Your task to perform on an android device: open app "Facebook Messenger" (install if not already installed) Image 0: 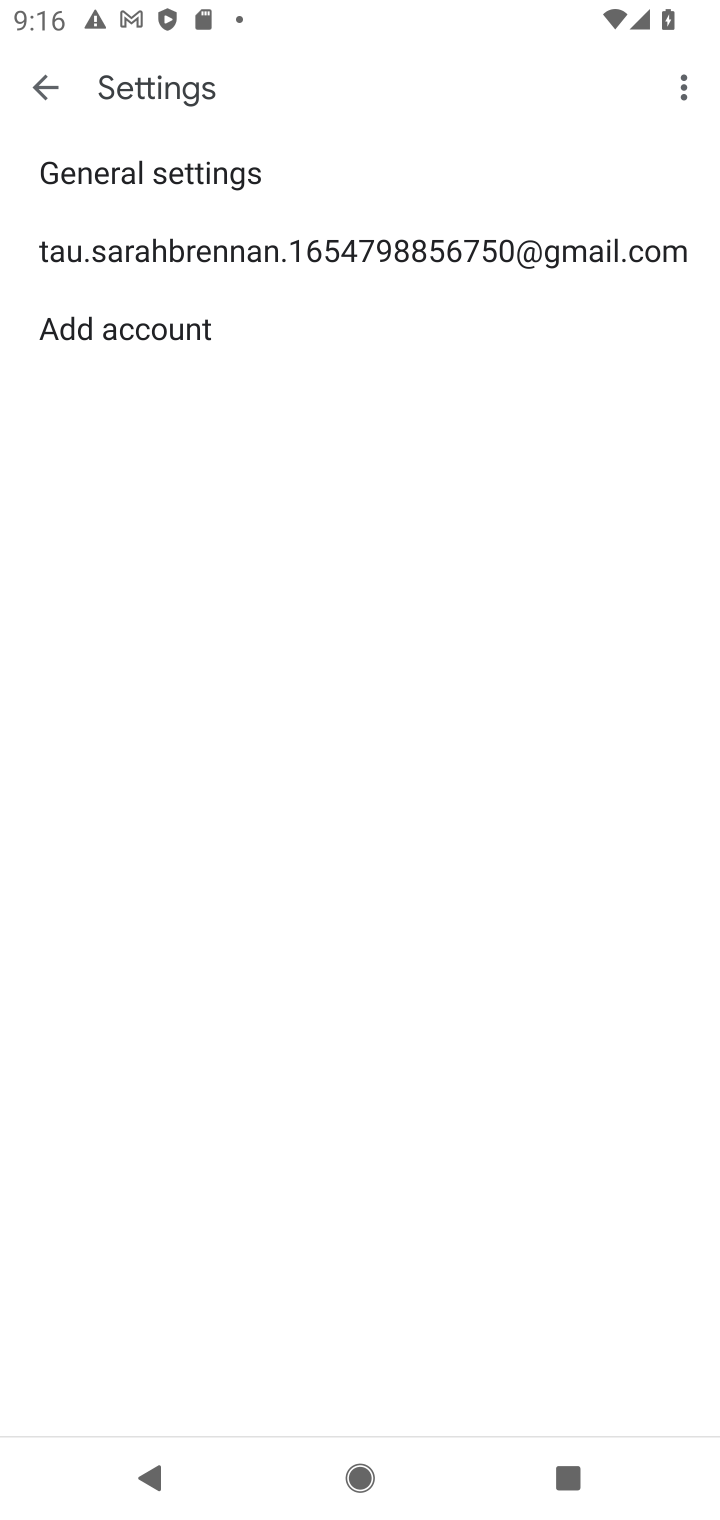
Step 0: press home button
Your task to perform on an android device: open app "Facebook Messenger" (install if not already installed) Image 1: 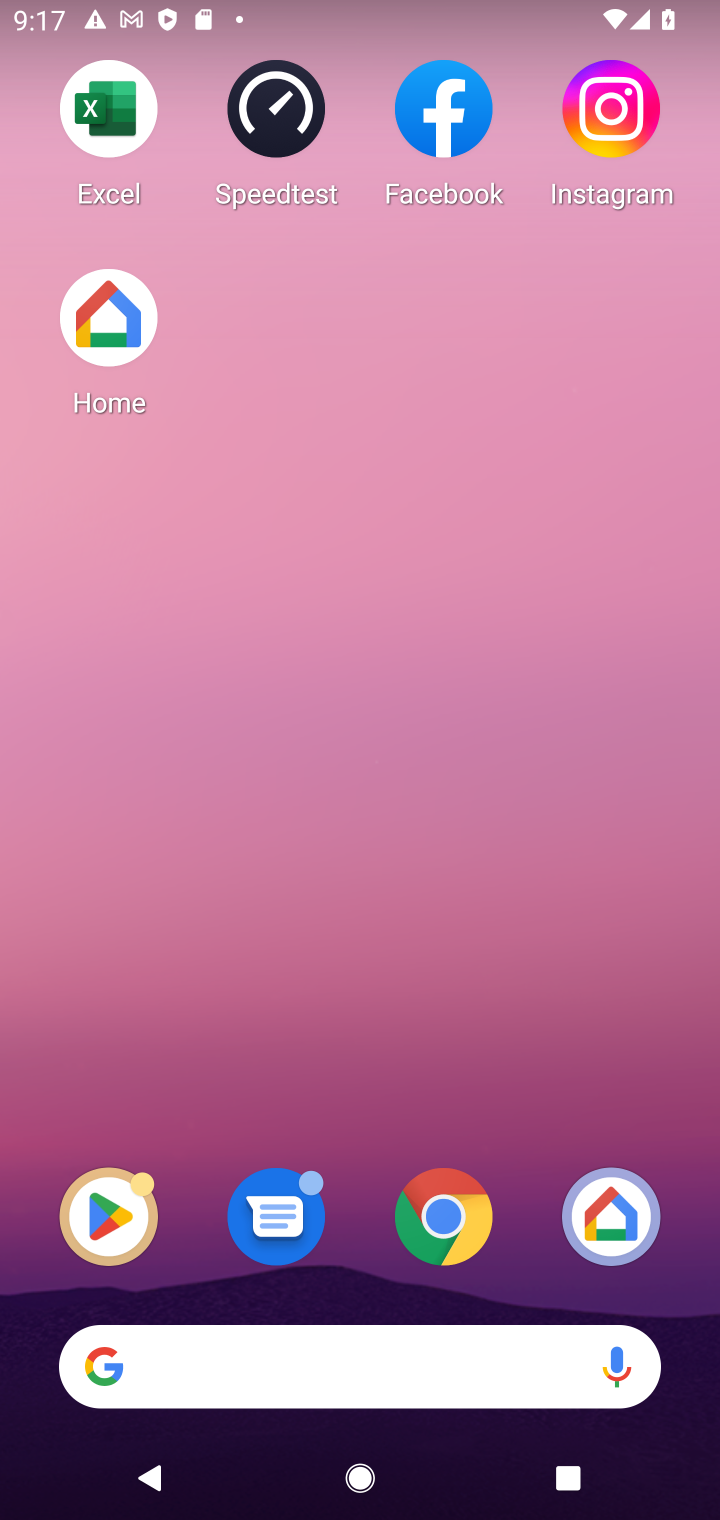
Step 1: click (120, 1220)
Your task to perform on an android device: open app "Facebook Messenger" (install if not already installed) Image 2: 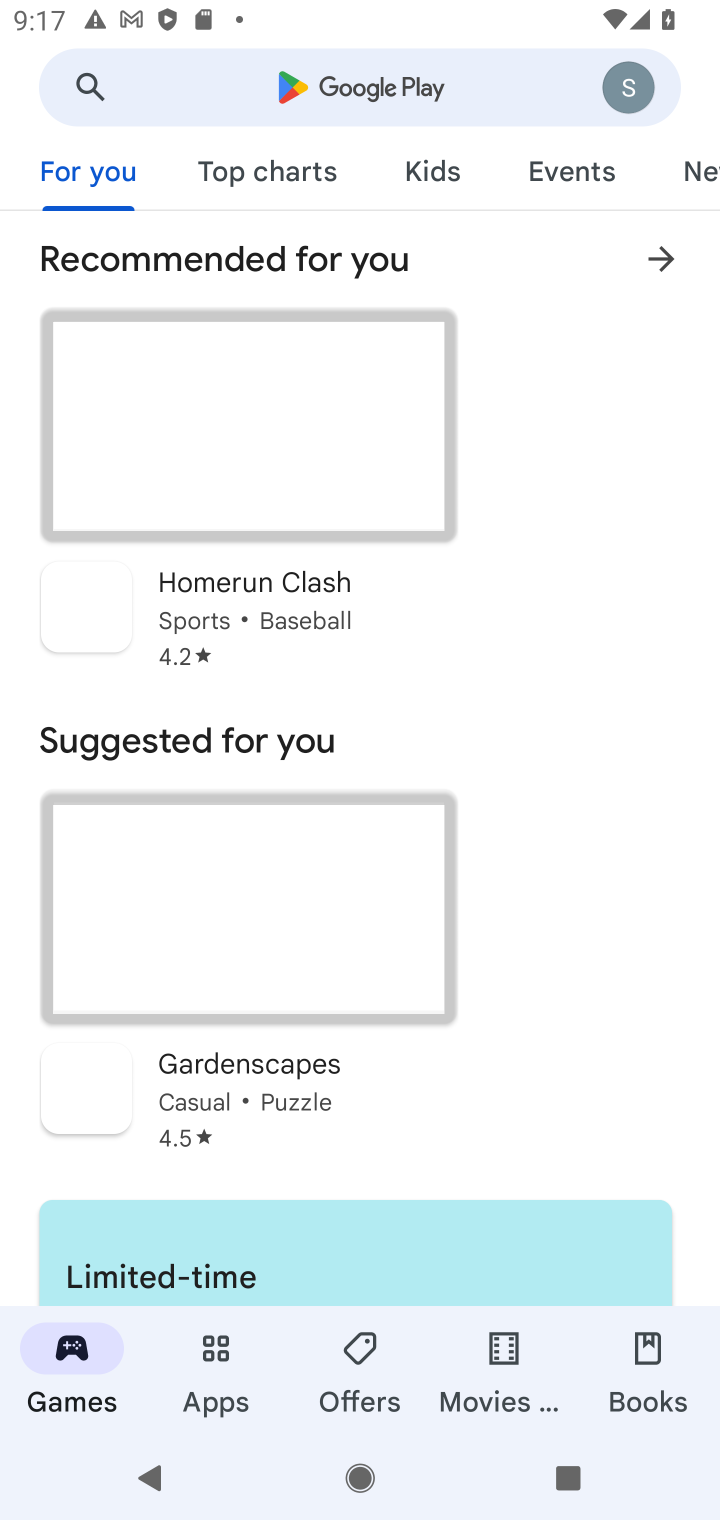
Step 2: click (209, 89)
Your task to perform on an android device: open app "Facebook Messenger" (install if not already installed) Image 3: 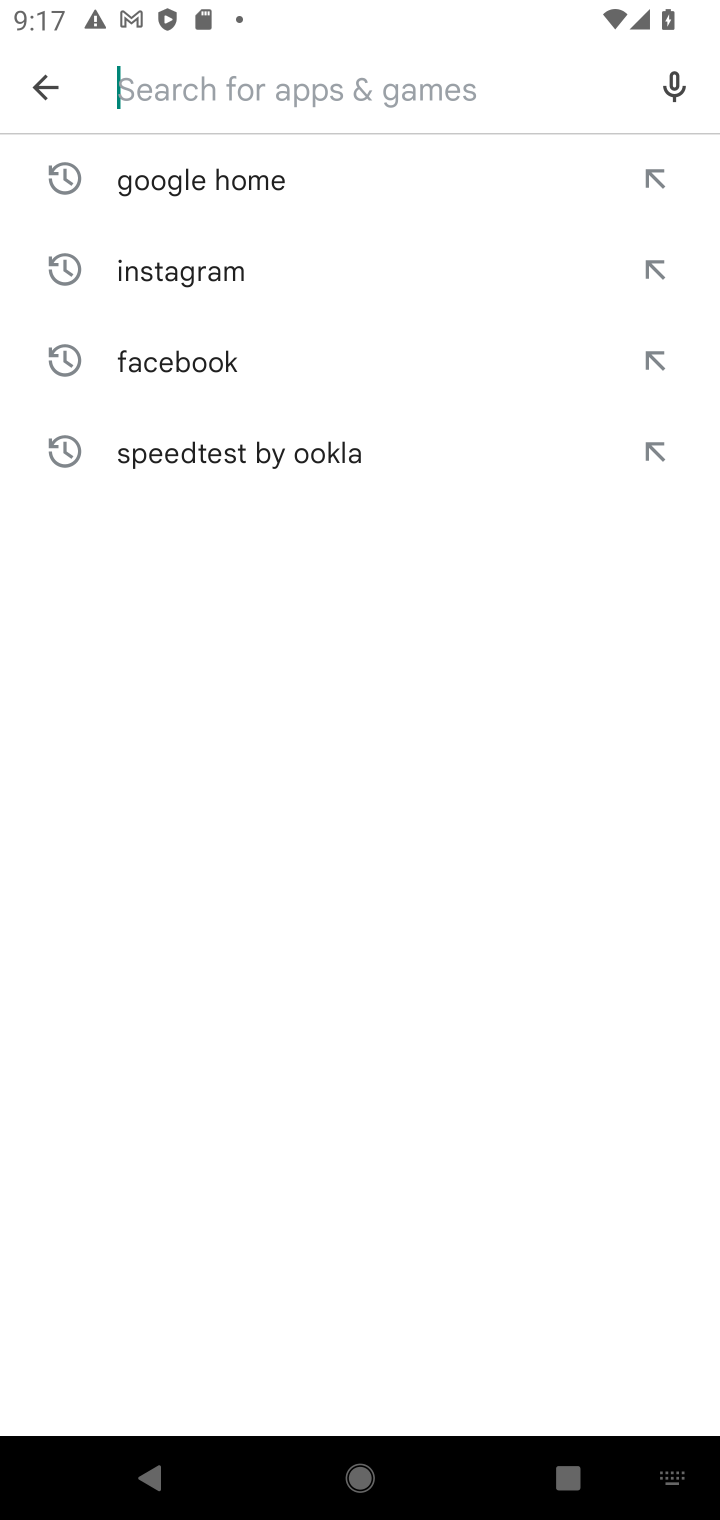
Step 3: type "Facebook Messenger"
Your task to perform on an android device: open app "Facebook Messenger" (install if not already installed) Image 4: 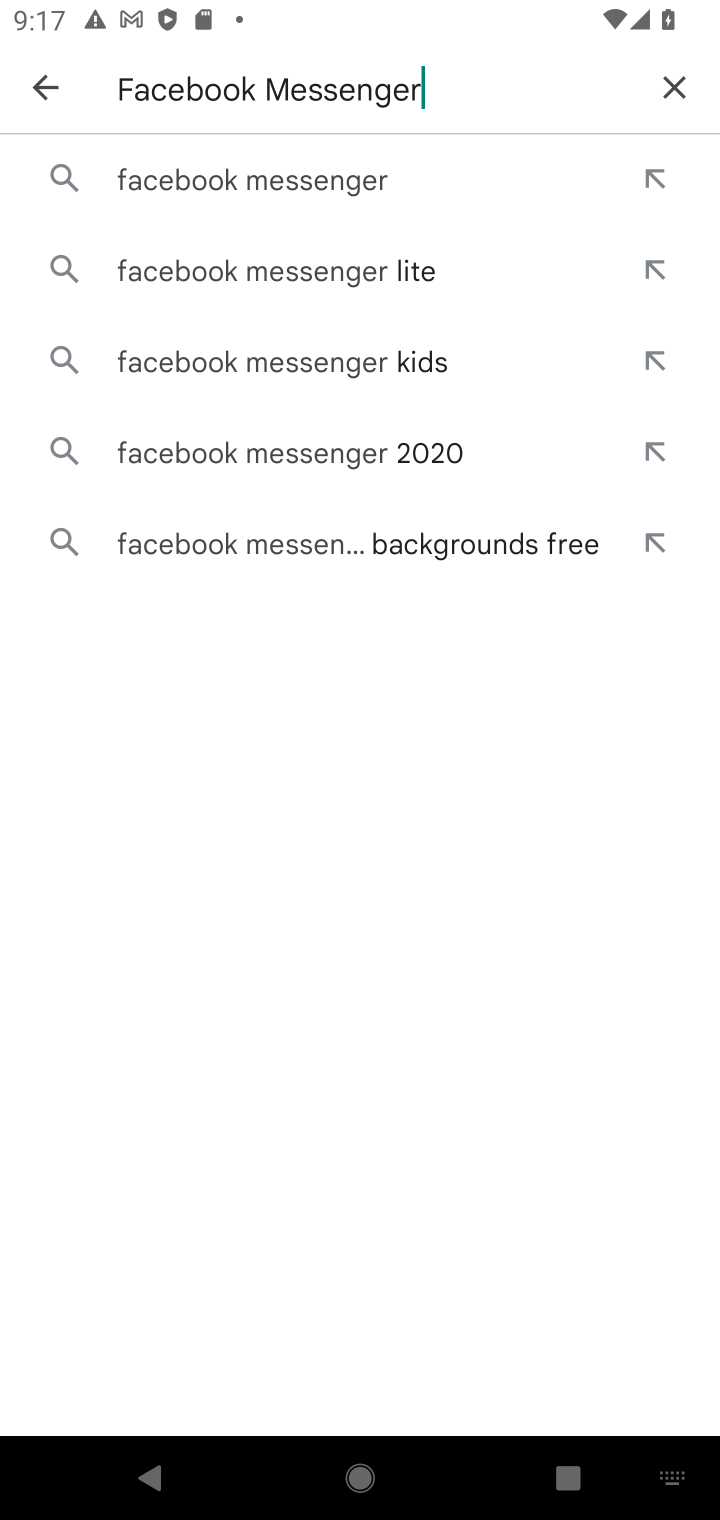
Step 4: click (215, 195)
Your task to perform on an android device: open app "Facebook Messenger" (install if not already installed) Image 5: 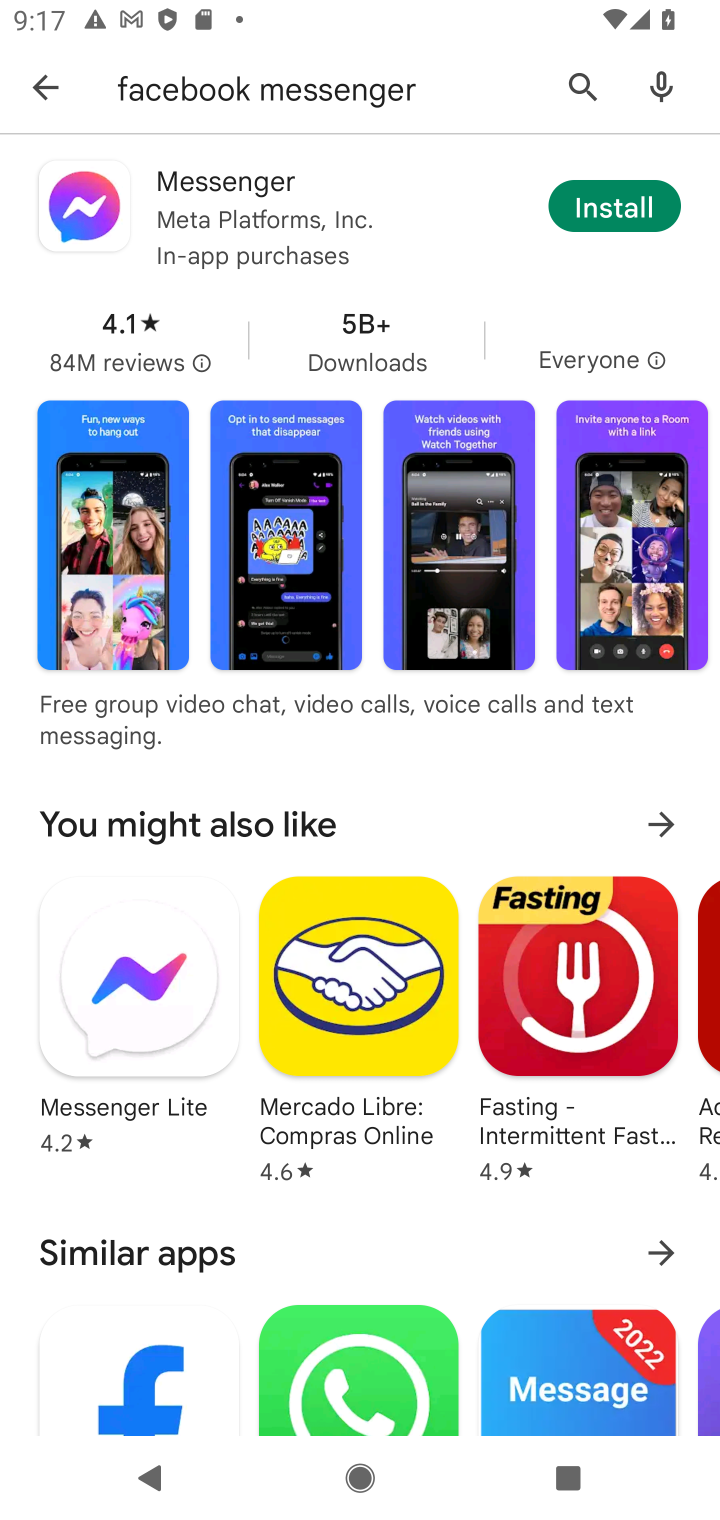
Step 5: click (599, 205)
Your task to perform on an android device: open app "Facebook Messenger" (install if not already installed) Image 6: 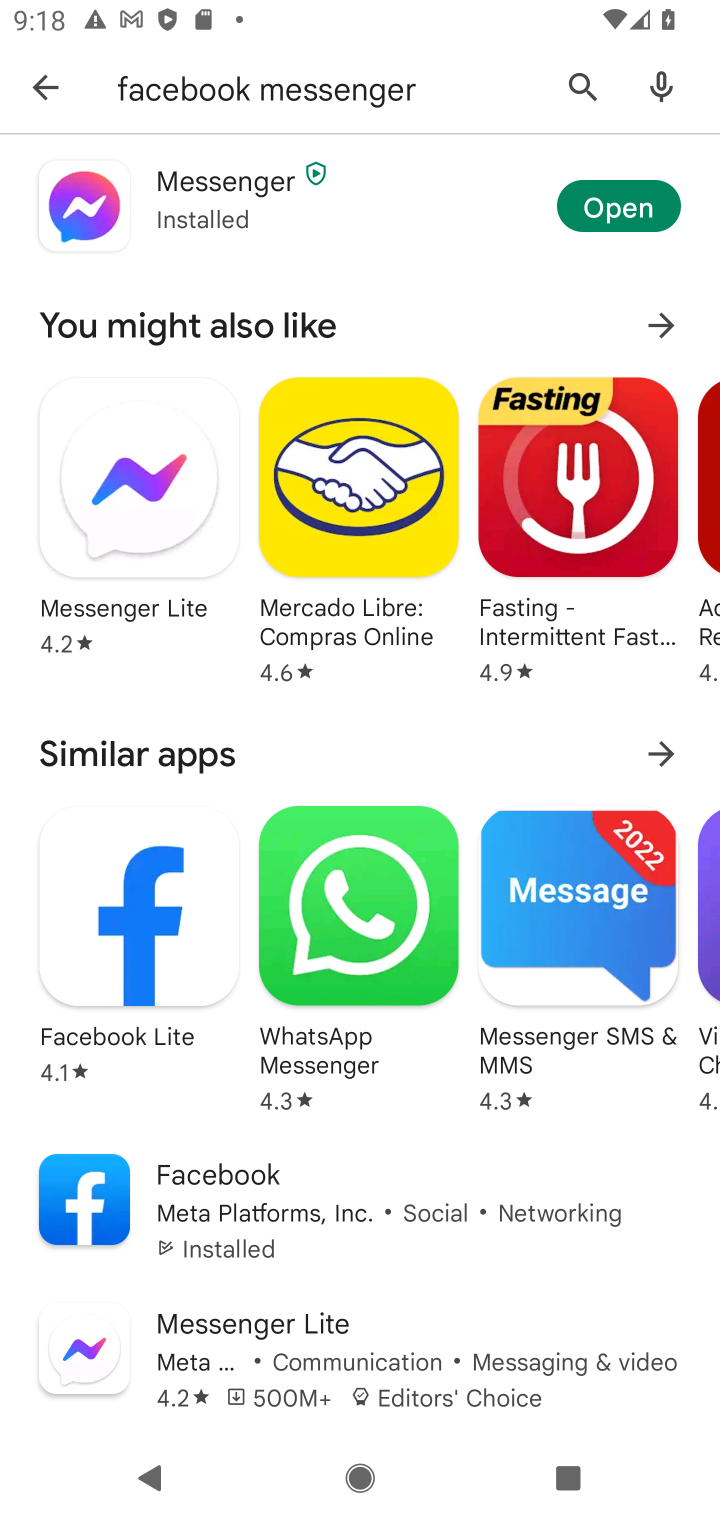
Step 6: click (607, 194)
Your task to perform on an android device: open app "Facebook Messenger" (install if not already installed) Image 7: 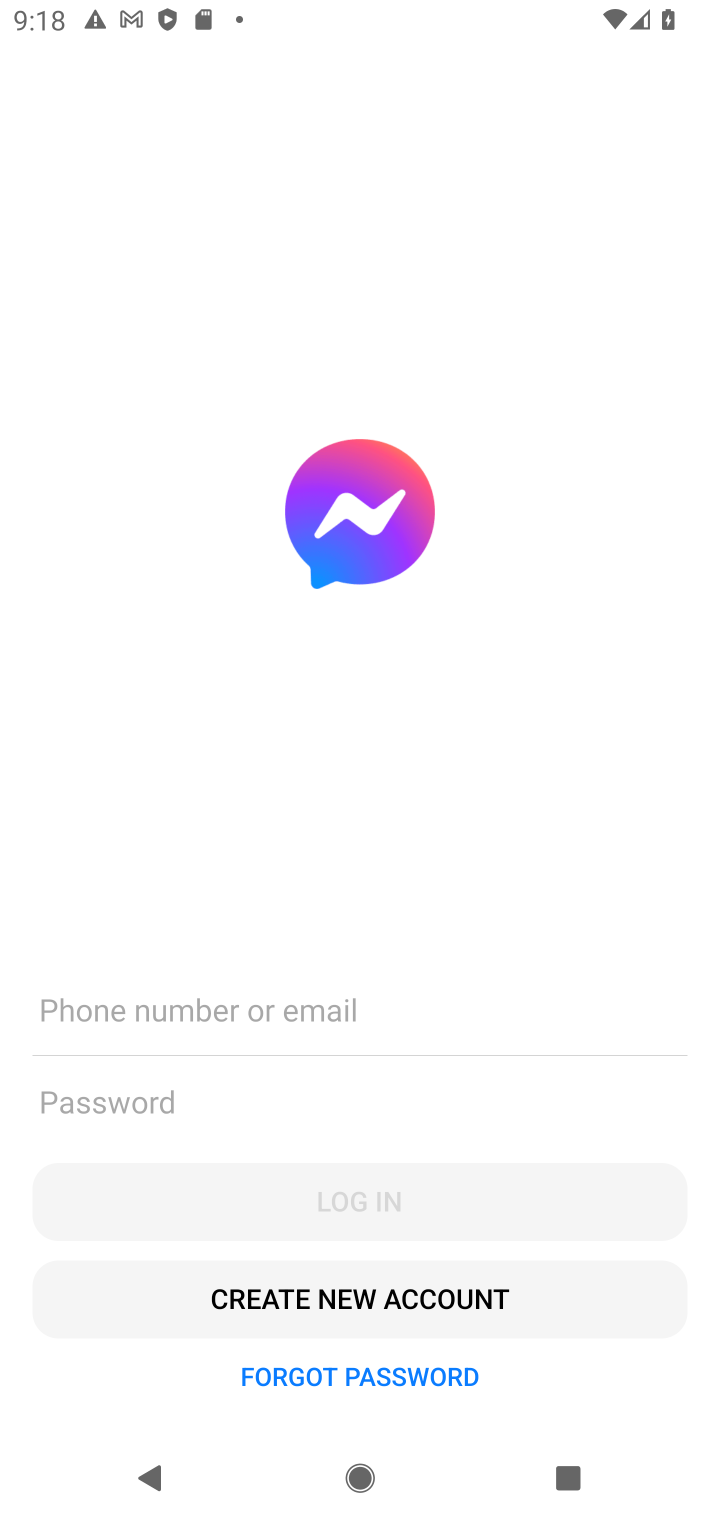
Step 7: task complete